Your task to perform on an android device: Toggle the flashlight Image 0: 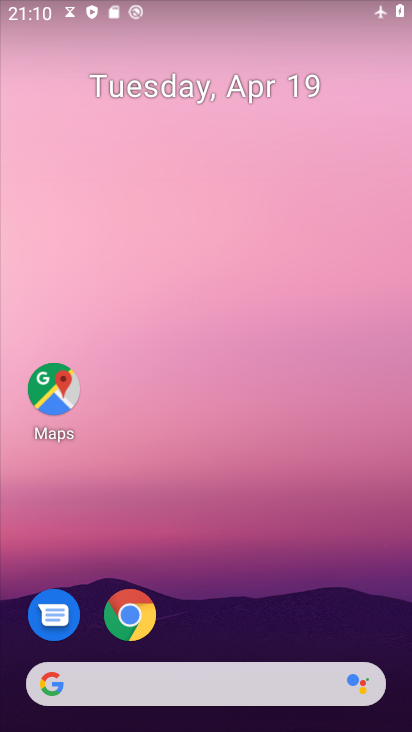
Step 0: drag from (374, 619) to (305, 45)
Your task to perform on an android device: Toggle the flashlight Image 1: 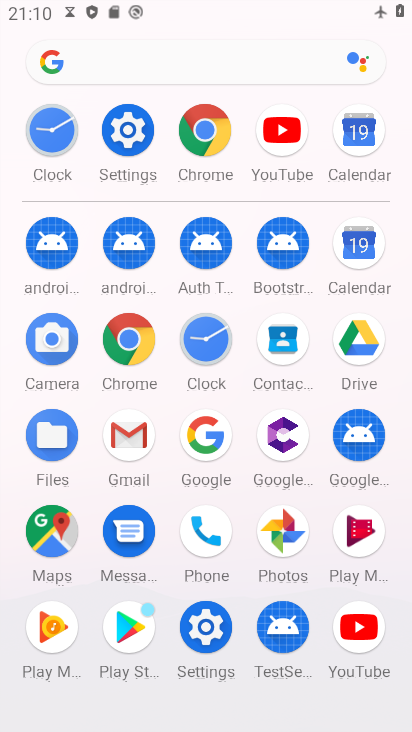
Step 1: click (129, 127)
Your task to perform on an android device: Toggle the flashlight Image 2: 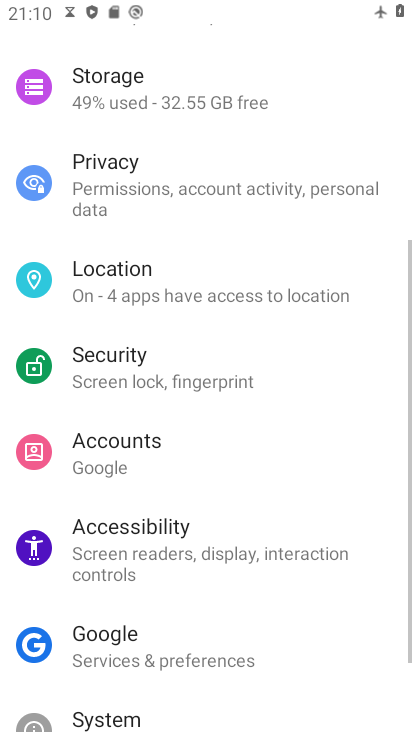
Step 2: drag from (244, 101) to (309, 502)
Your task to perform on an android device: Toggle the flashlight Image 3: 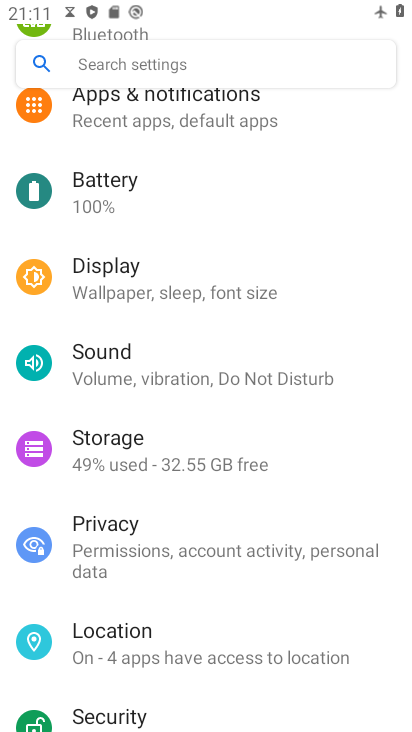
Step 3: drag from (293, 175) to (256, 570)
Your task to perform on an android device: Toggle the flashlight Image 4: 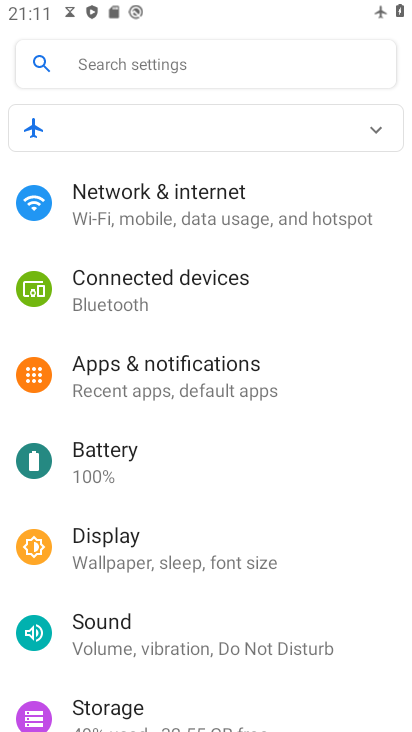
Step 4: click (251, 188)
Your task to perform on an android device: Toggle the flashlight Image 5: 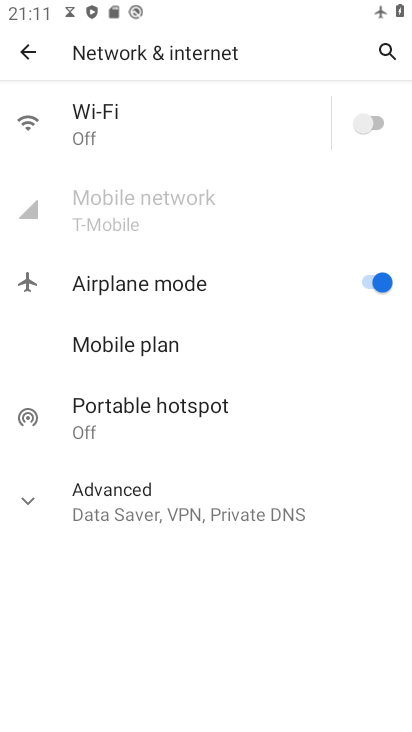
Step 5: click (17, 51)
Your task to perform on an android device: Toggle the flashlight Image 6: 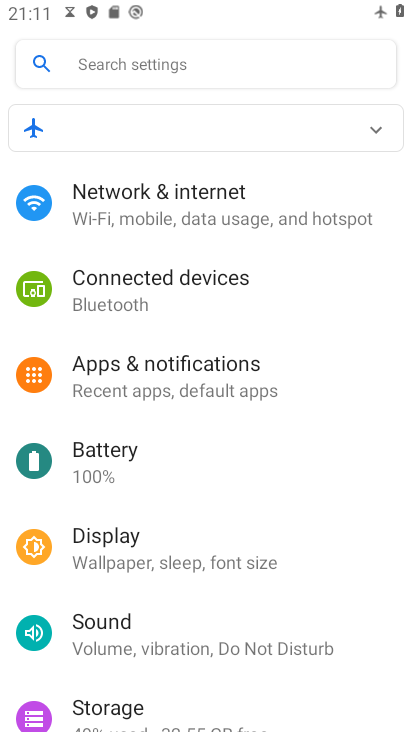
Step 6: click (244, 374)
Your task to perform on an android device: Toggle the flashlight Image 7: 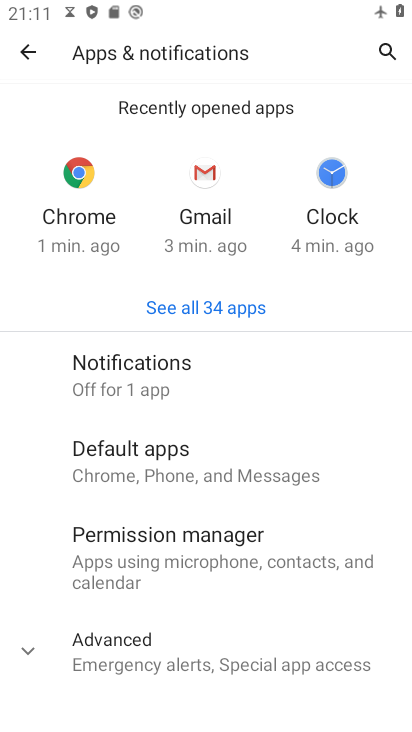
Step 7: click (39, 47)
Your task to perform on an android device: Toggle the flashlight Image 8: 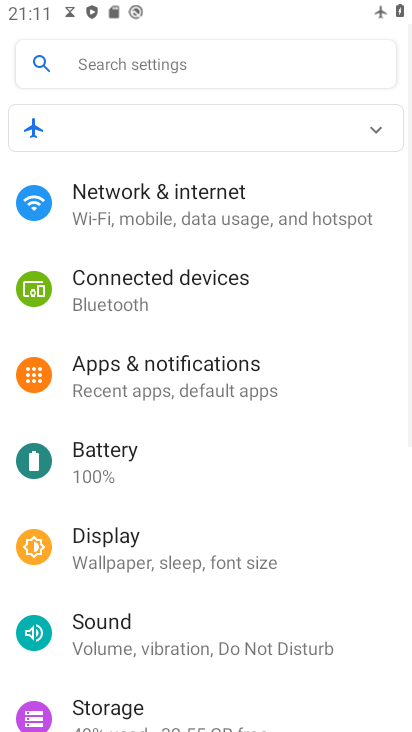
Step 8: task complete